Your task to perform on an android device: all mails in gmail Image 0: 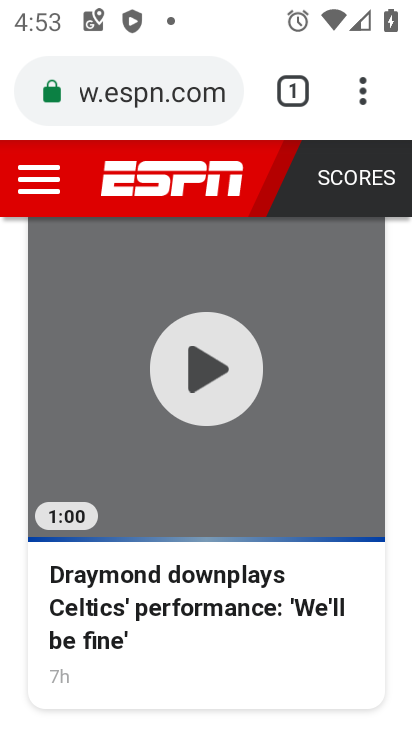
Step 0: press home button
Your task to perform on an android device: all mails in gmail Image 1: 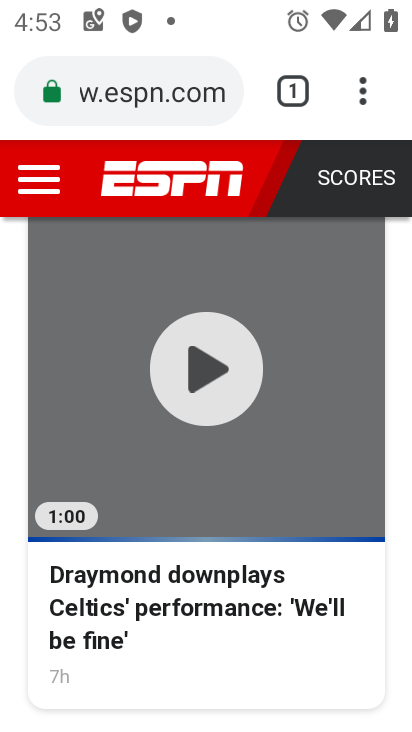
Step 1: press home button
Your task to perform on an android device: all mails in gmail Image 2: 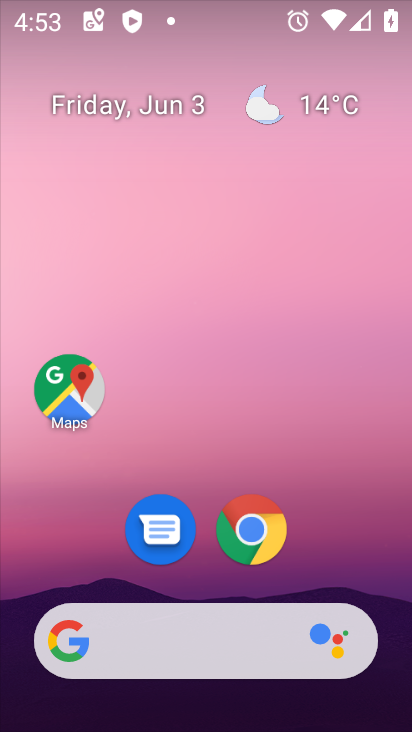
Step 2: drag from (222, 210) to (228, 127)
Your task to perform on an android device: all mails in gmail Image 3: 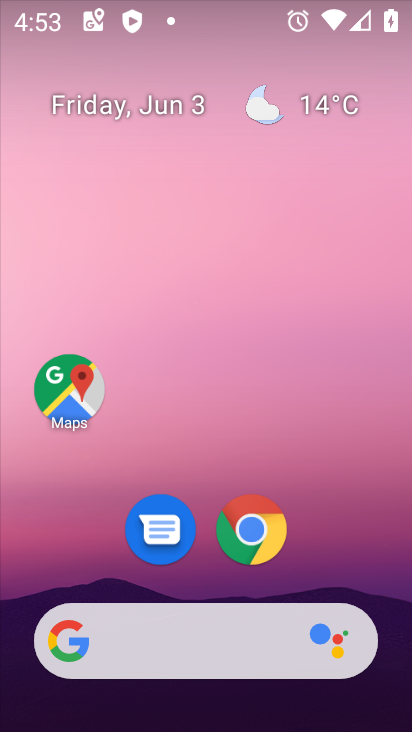
Step 3: drag from (206, 566) to (231, 20)
Your task to perform on an android device: all mails in gmail Image 4: 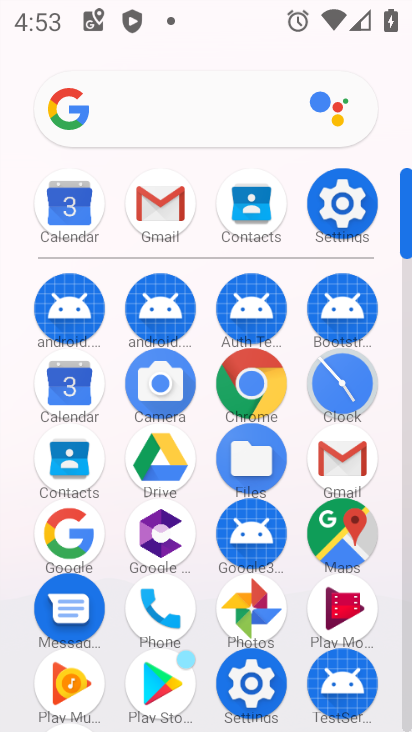
Step 4: click (160, 192)
Your task to perform on an android device: all mails in gmail Image 5: 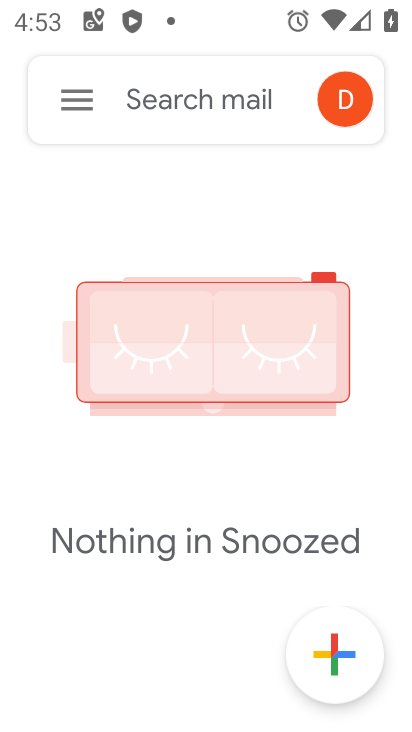
Step 5: click (80, 100)
Your task to perform on an android device: all mails in gmail Image 6: 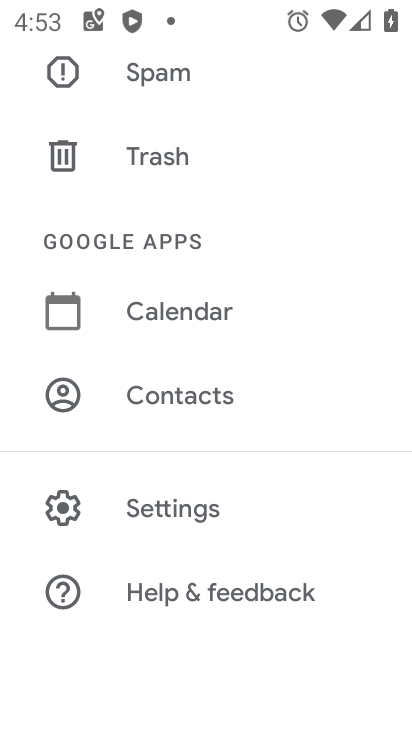
Step 6: drag from (120, 113) to (146, 449)
Your task to perform on an android device: all mails in gmail Image 7: 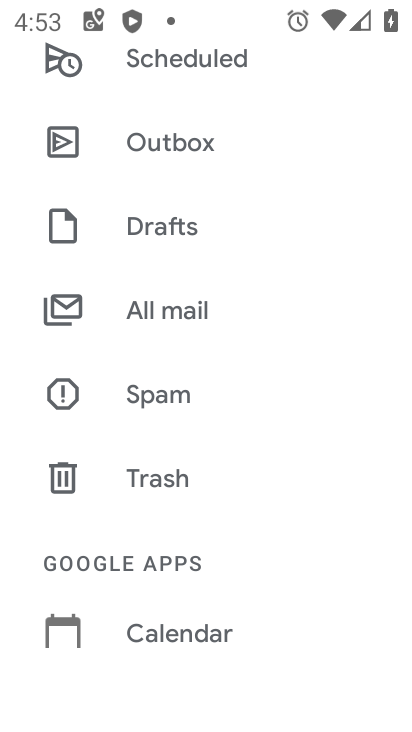
Step 7: click (149, 462)
Your task to perform on an android device: all mails in gmail Image 8: 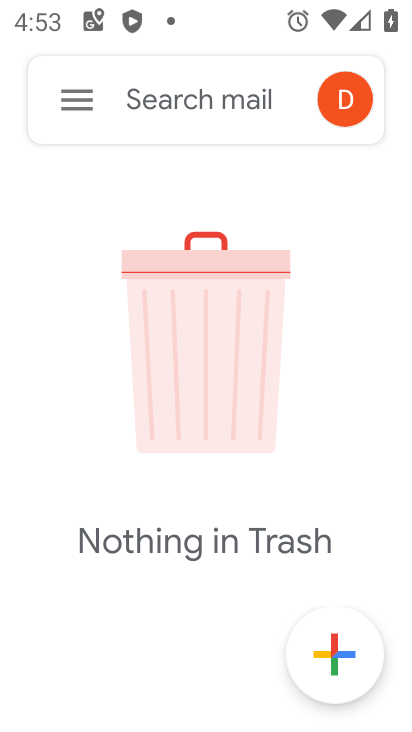
Step 8: click (66, 93)
Your task to perform on an android device: all mails in gmail Image 9: 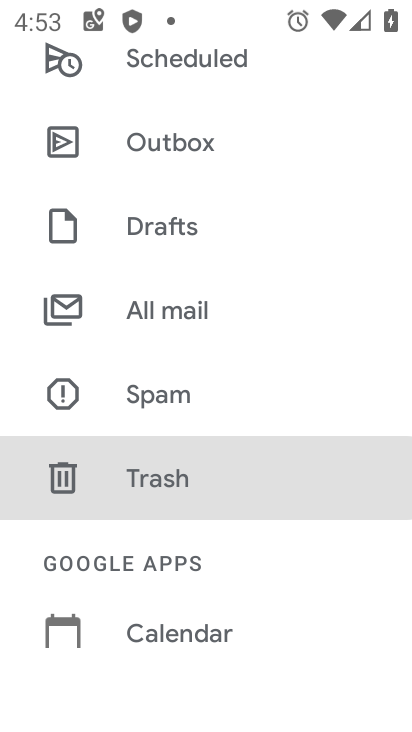
Step 9: click (117, 305)
Your task to perform on an android device: all mails in gmail Image 10: 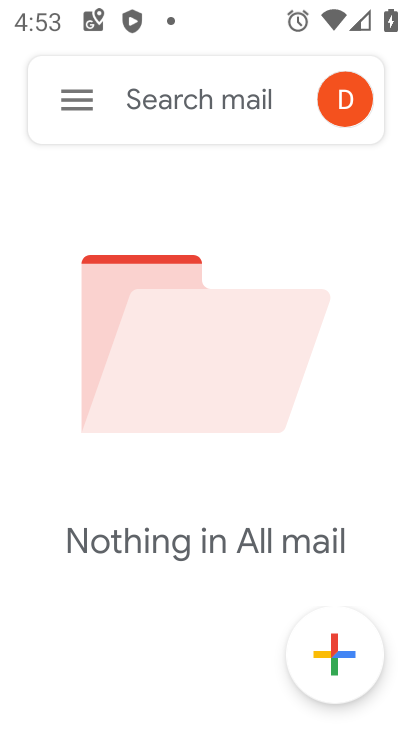
Step 10: task complete